Your task to perform on an android device: find snoozed emails in the gmail app Image 0: 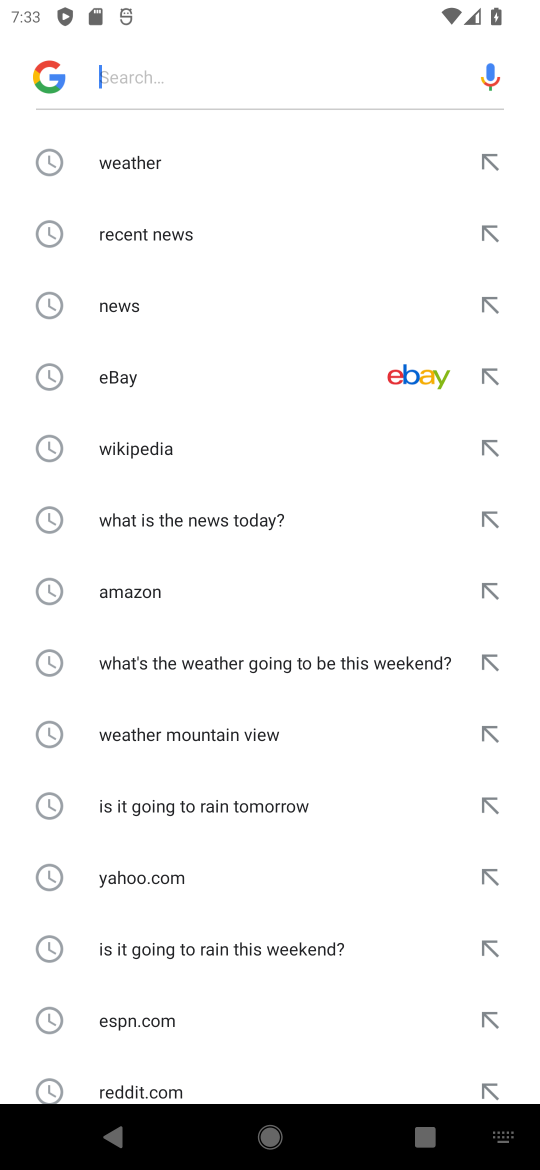
Step 0: press home button
Your task to perform on an android device: find snoozed emails in the gmail app Image 1: 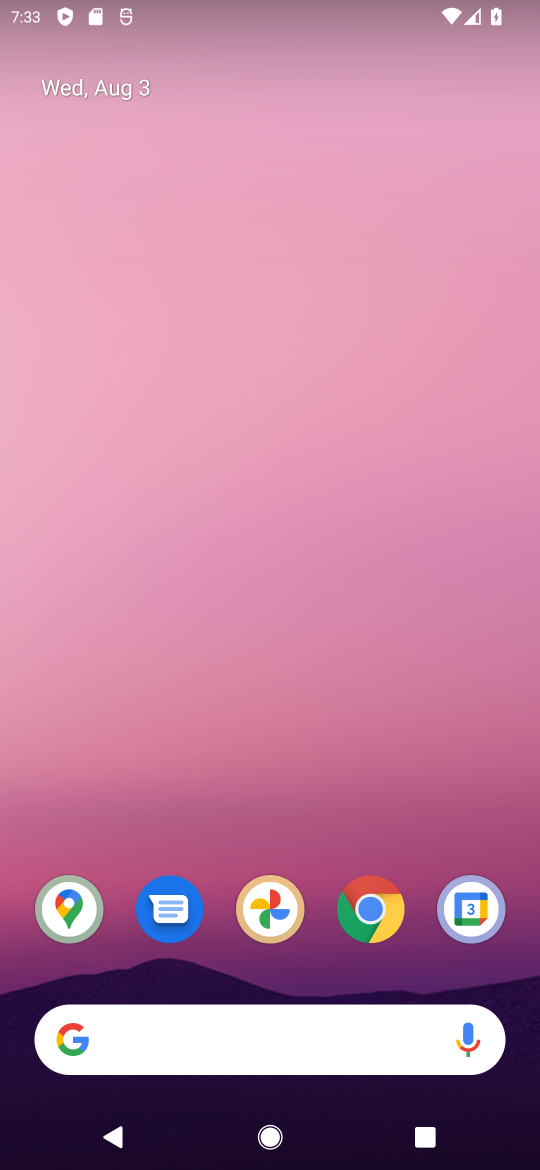
Step 1: drag from (294, 773) to (295, 146)
Your task to perform on an android device: find snoozed emails in the gmail app Image 2: 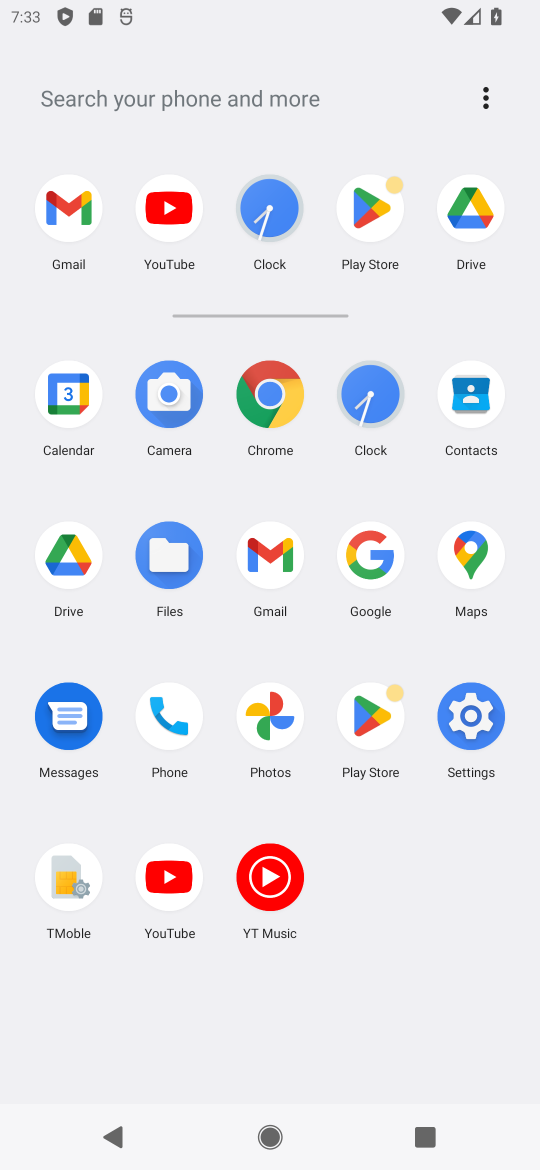
Step 2: click (267, 555)
Your task to perform on an android device: find snoozed emails in the gmail app Image 3: 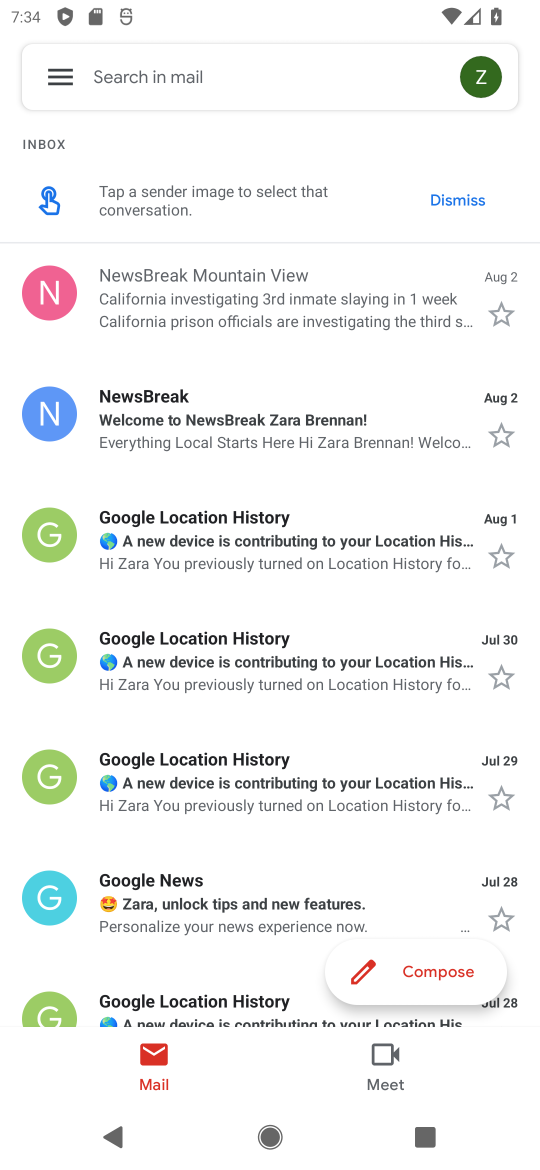
Step 3: click (59, 89)
Your task to perform on an android device: find snoozed emails in the gmail app Image 4: 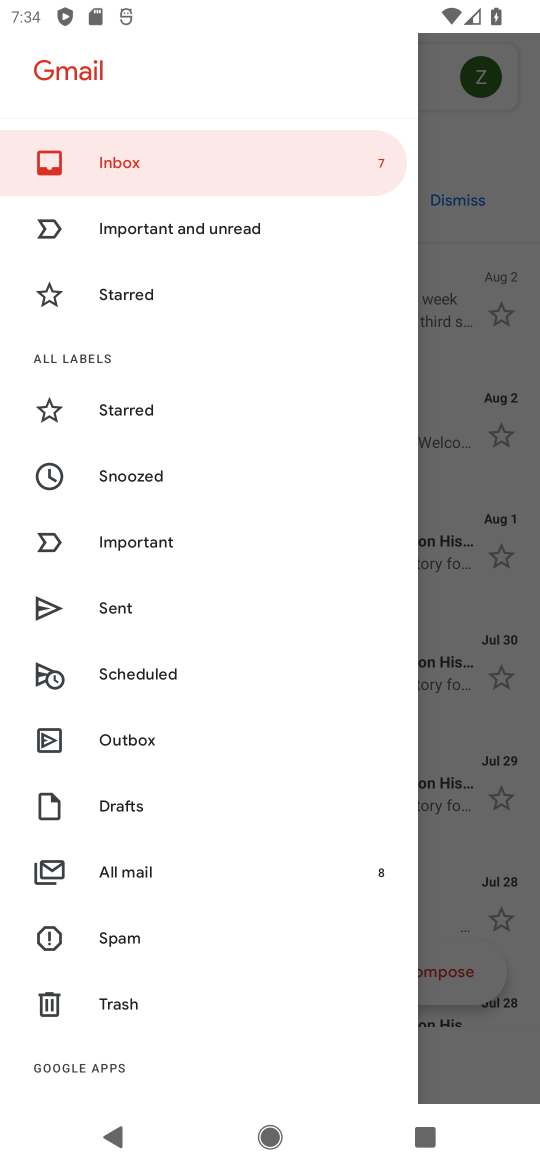
Step 4: drag from (247, 684) to (257, 430)
Your task to perform on an android device: find snoozed emails in the gmail app Image 5: 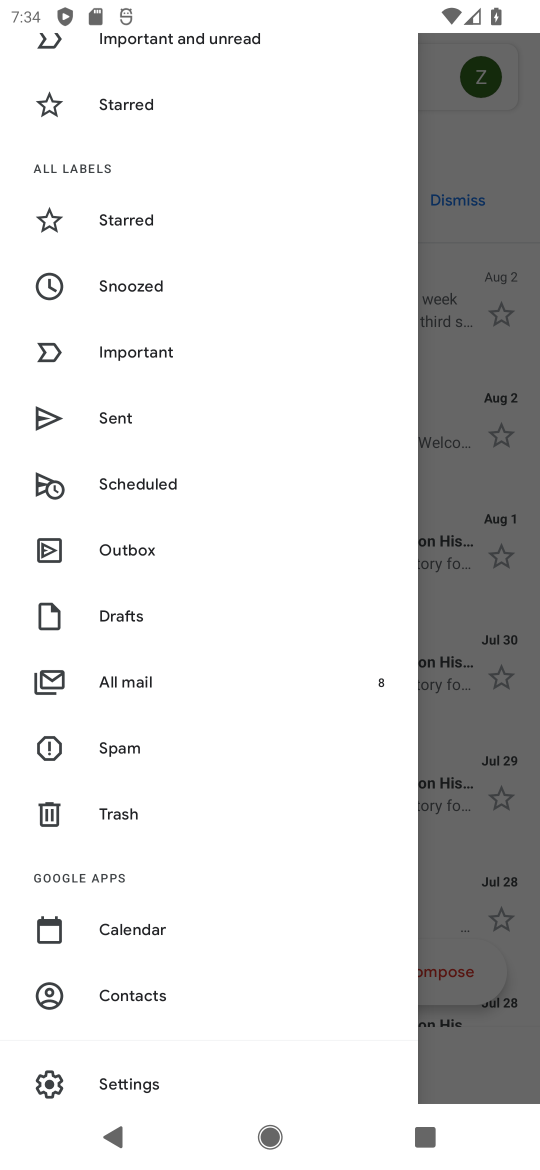
Step 5: drag from (324, 909) to (294, 472)
Your task to perform on an android device: find snoozed emails in the gmail app Image 6: 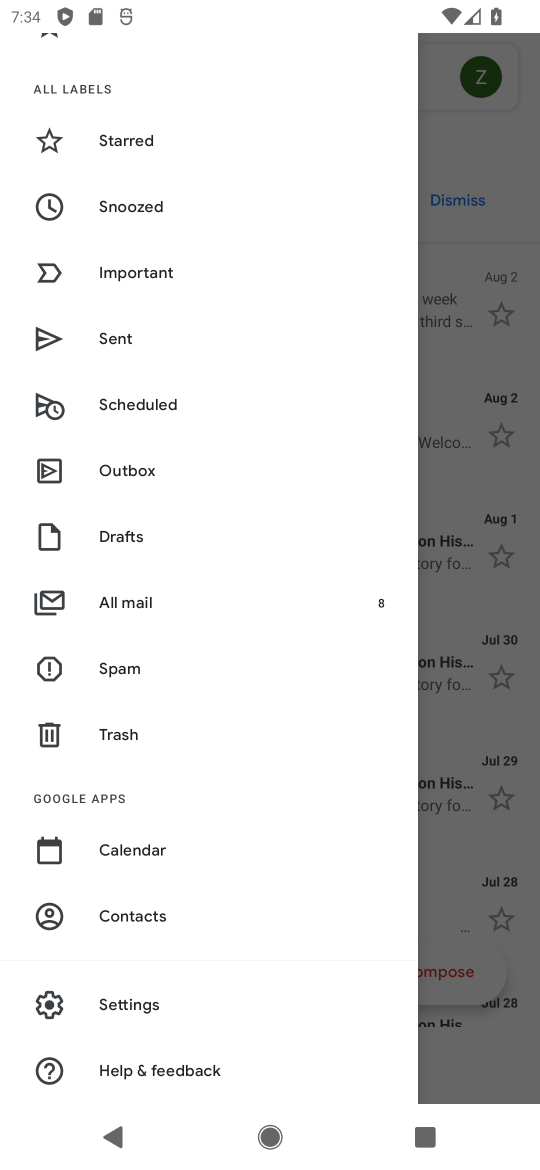
Step 6: drag from (236, 424) to (238, 799)
Your task to perform on an android device: find snoozed emails in the gmail app Image 7: 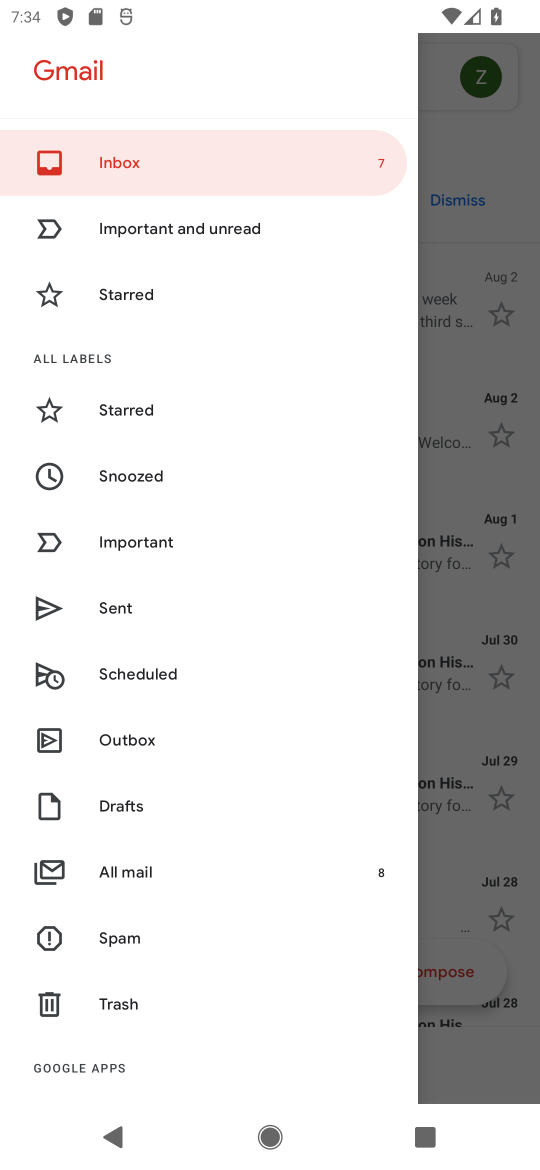
Step 7: click (180, 479)
Your task to perform on an android device: find snoozed emails in the gmail app Image 8: 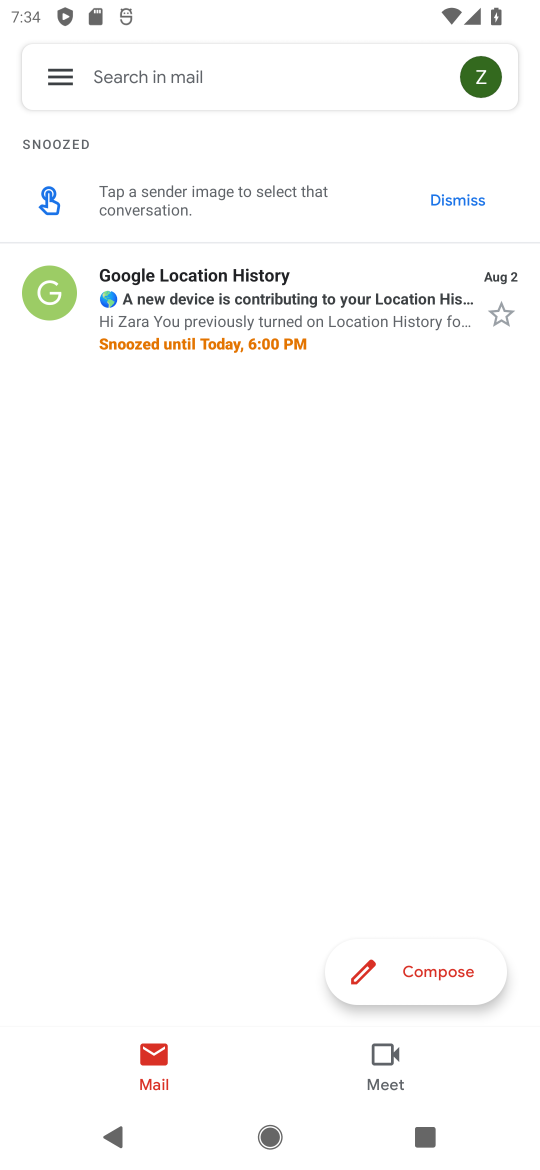
Step 8: task complete